Your task to perform on an android device: check google app version Image 0: 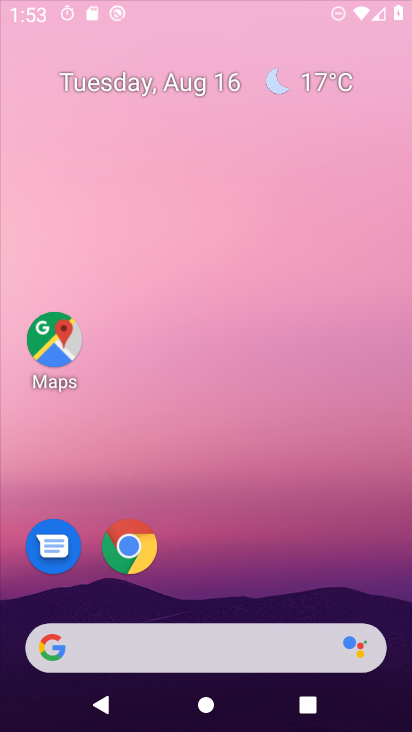
Step 0: press home button
Your task to perform on an android device: check google app version Image 1: 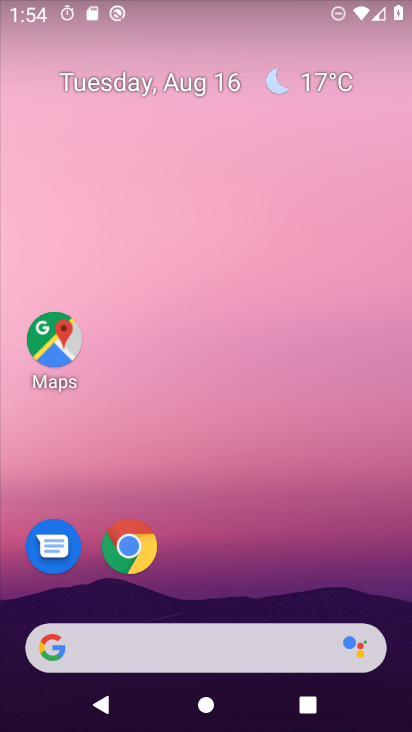
Step 1: drag from (206, 575) to (193, 16)
Your task to perform on an android device: check google app version Image 2: 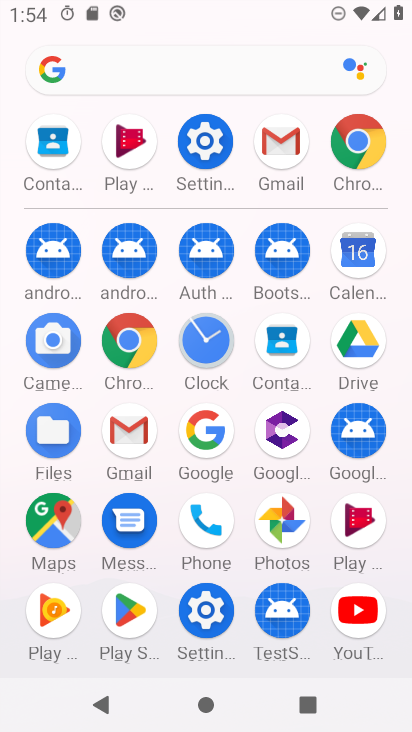
Step 2: click (202, 132)
Your task to perform on an android device: check google app version Image 3: 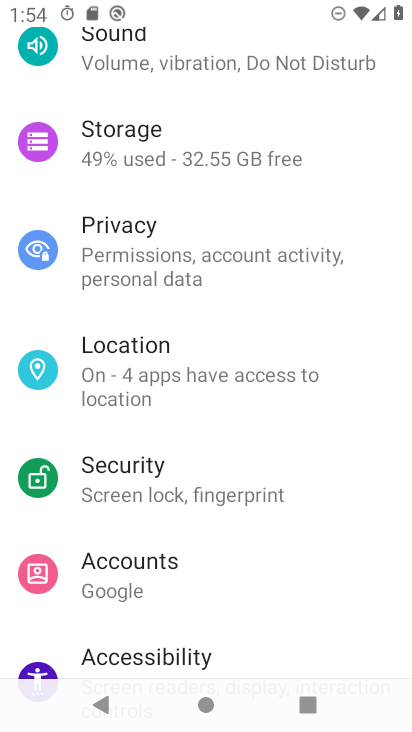
Step 3: press home button
Your task to perform on an android device: check google app version Image 4: 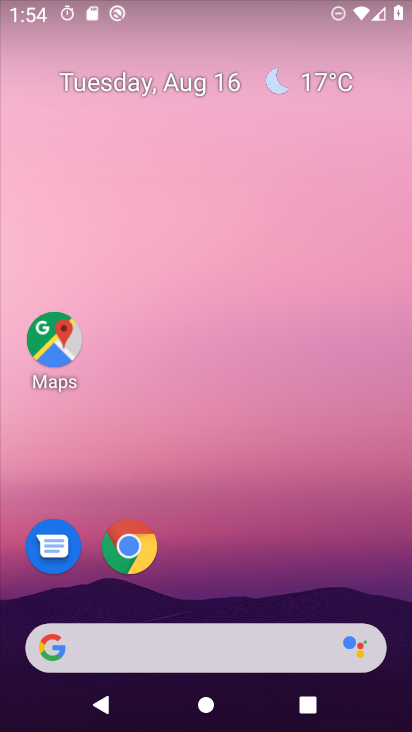
Step 4: drag from (215, 608) to (145, 118)
Your task to perform on an android device: check google app version Image 5: 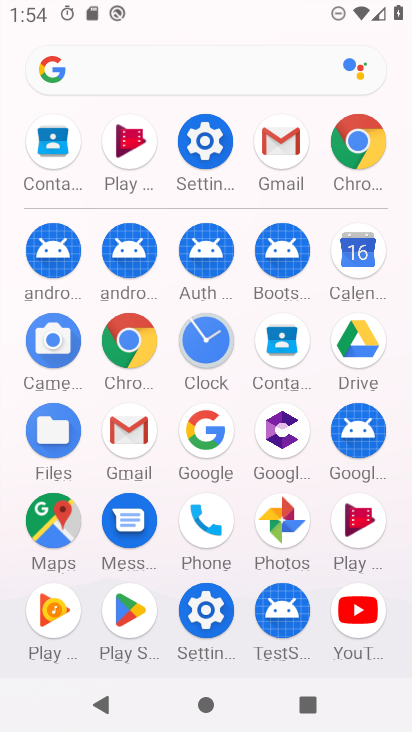
Step 5: click (211, 441)
Your task to perform on an android device: check google app version Image 6: 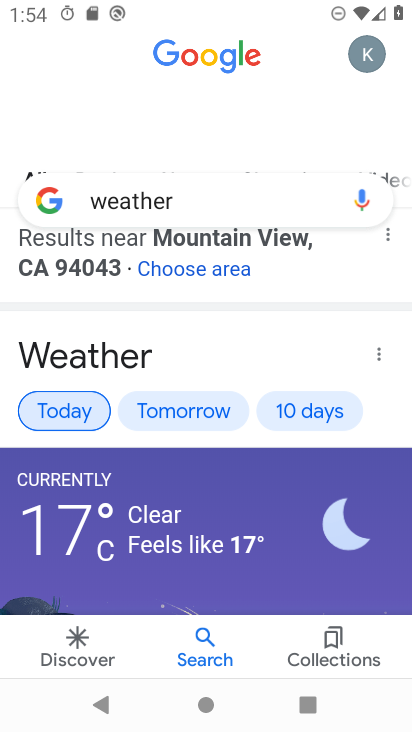
Step 6: click (362, 51)
Your task to perform on an android device: check google app version Image 7: 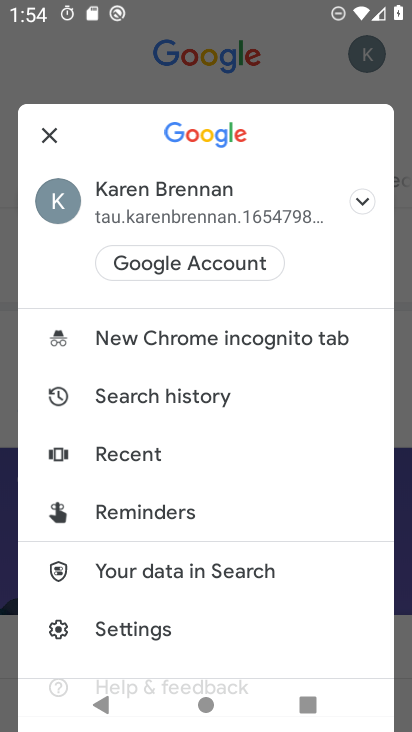
Step 7: click (121, 627)
Your task to perform on an android device: check google app version Image 8: 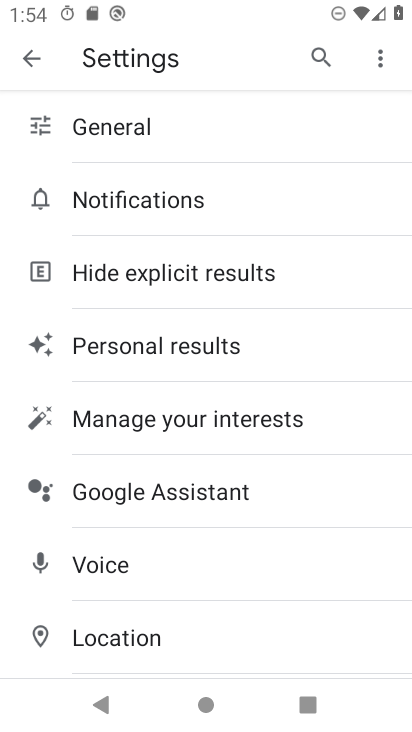
Step 8: drag from (111, 633) to (122, 321)
Your task to perform on an android device: check google app version Image 9: 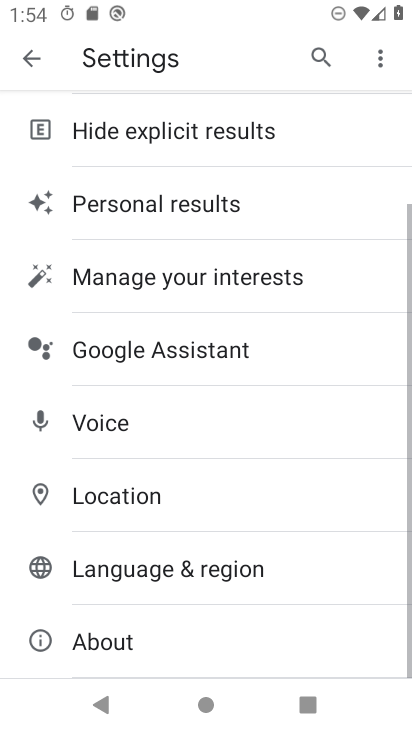
Step 9: click (118, 648)
Your task to perform on an android device: check google app version Image 10: 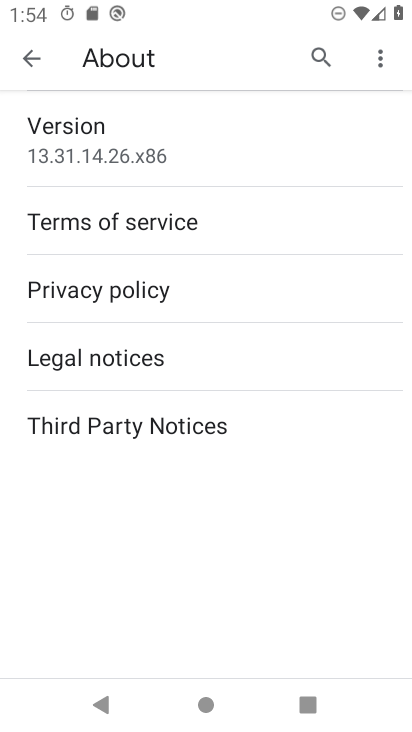
Step 10: task complete